Your task to perform on an android device: open sync settings in chrome Image 0: 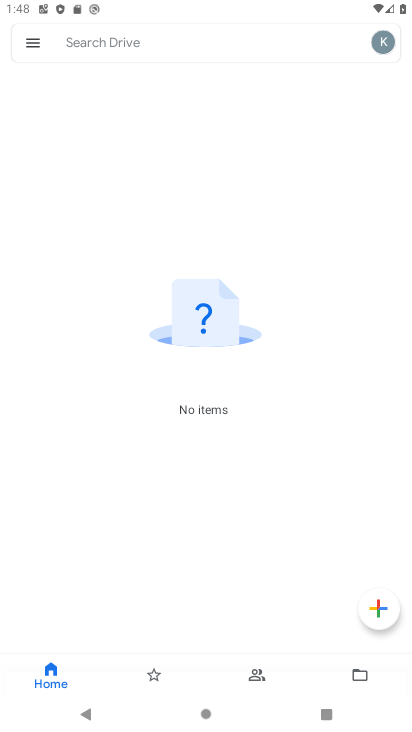
Step 0: press home button
Your task to perform on an android device: open sync settings in chrome Image 1: 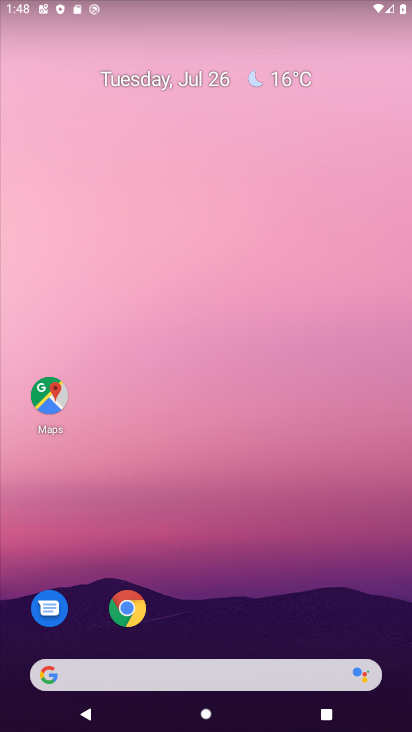
Step 1: click (117, 614)
Your task to perform on an android device: open sync settings in chrome Image 2: 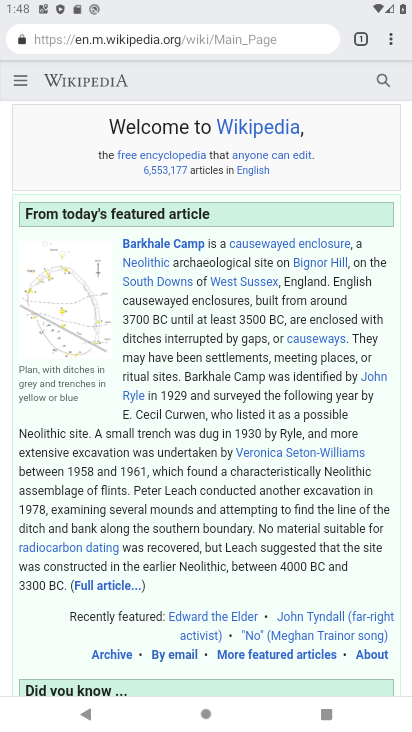
Step 2: click (393, 40)
Your task to perform on an android device: open sync settings in chrome Image 3: 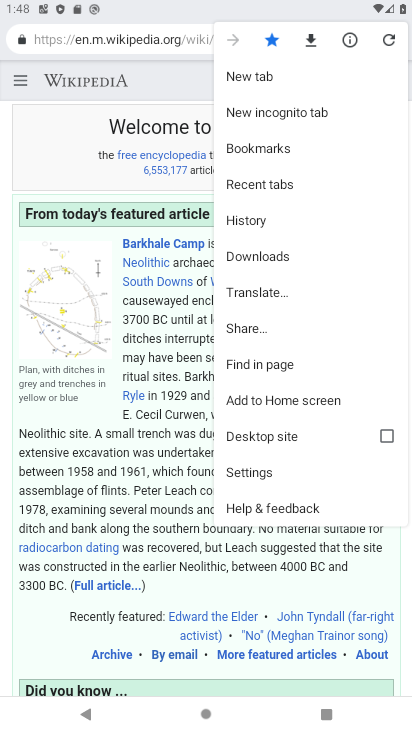
Step 3: click (242, 470)
Your task to perform on an android device: open sync settings in chrome Image 4: 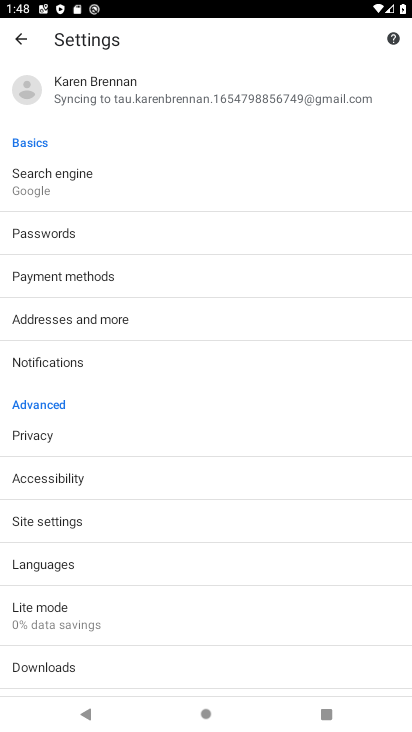
Step 4: task complete